Your task to perform on an android device: Go to internet settings Image 0: 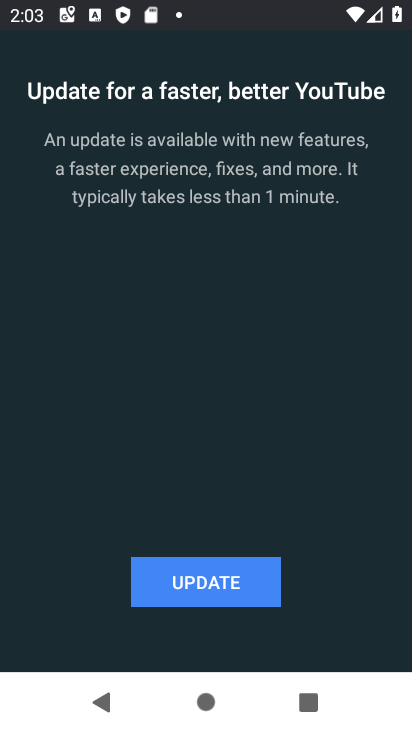
Step 0: press home button
Your task to perform on an android device: Go to internet settings Image 1: 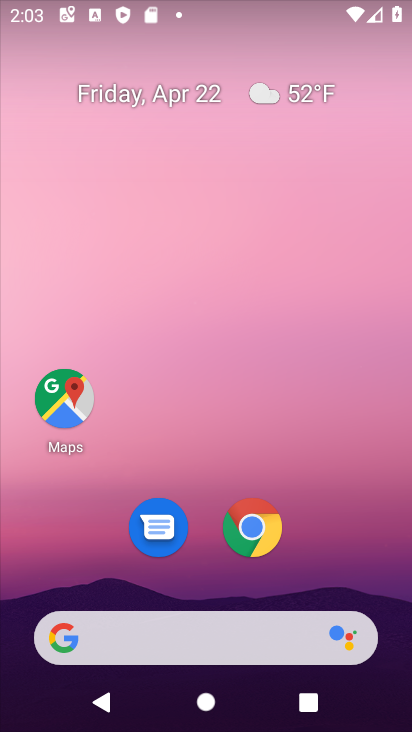
Step 1: drag from (333, 508) to (349, 83)
Your task to perform on an android device: Go to internet settings Image 2: 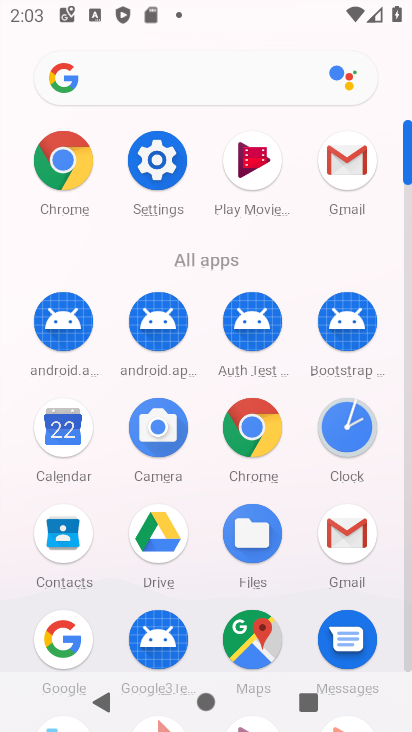
Step 2: click (165, 166)
Your task to perform on an android device: Go to internet settings Image 3: 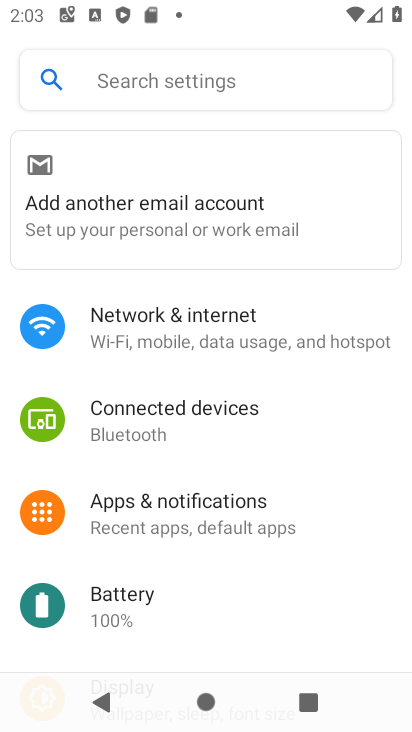
Step 3: click (163, 316)
Your task to perform on an android device: Go to internet settings Image 4: 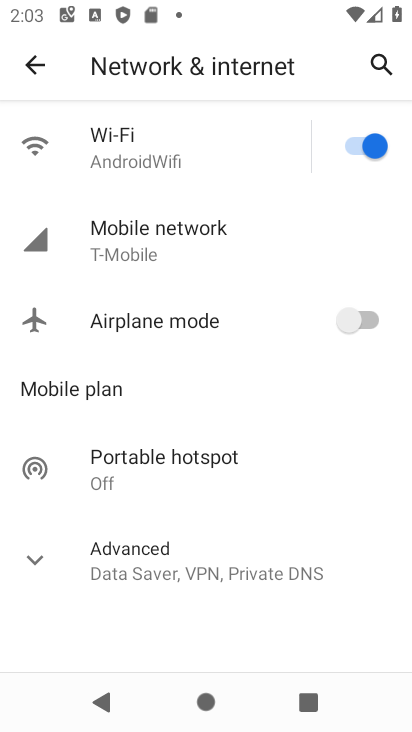
Step 4: click (145, 247)
Your task to perform on an android device: Go to internet settings Image 5: 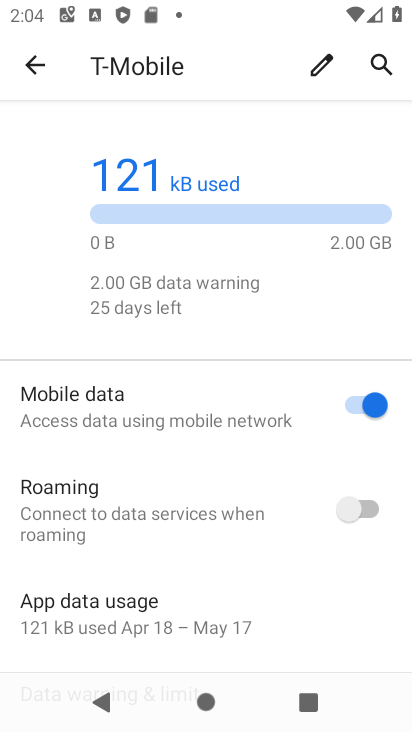
Step 5: task complete